Your task to perform on an android device: manage bookmarks in the chrome app Image 0: 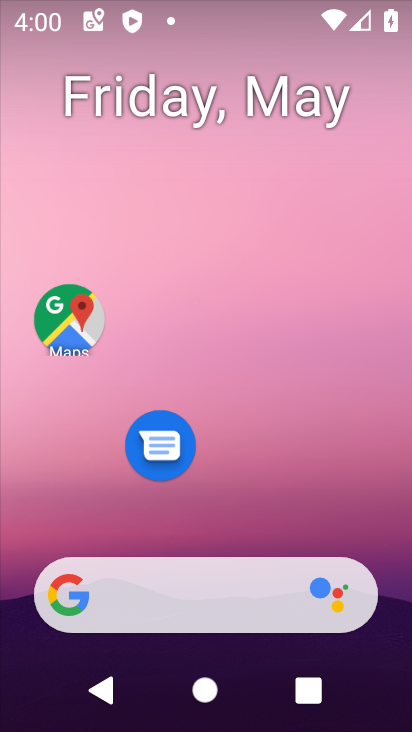
Step 0: drag from (252, 533) to (302, 104)
Your task to perform on an android device: manage bookmarks in the chrome app Image 1: 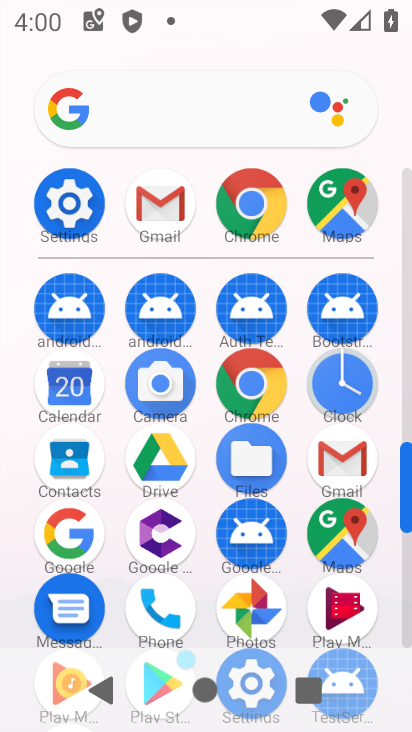
Step 1: click (256, 211)
Your task to perform on an android device: manage bookmarks in the chrome app Image 2: 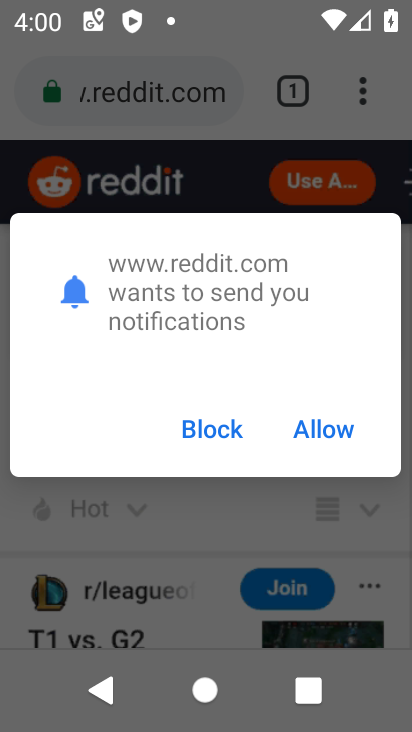
Step 2: click (364, 82)
Your task to perform on an android device: manage bookmarks in the chrome app Image 3: 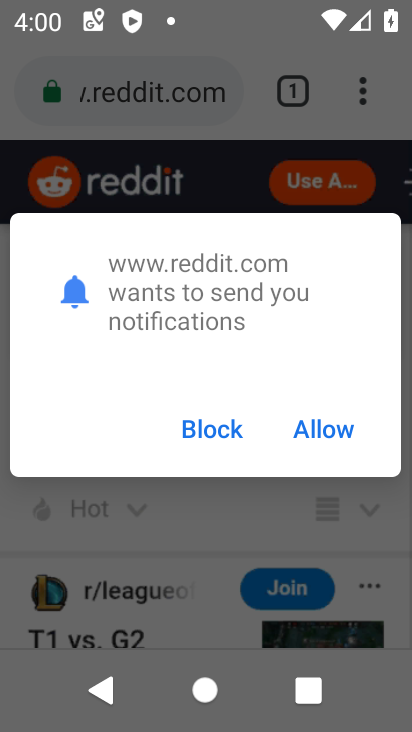
Step 3: click (201, 436)
Your task to perform on an android device: manage bookmarks in the chrome app Image 4: 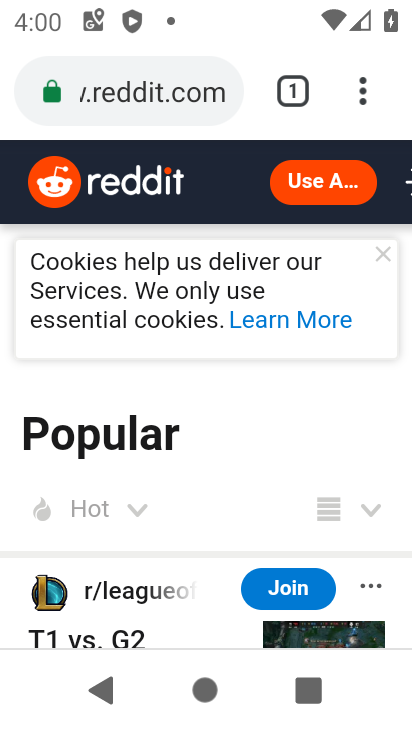
Step 4: click (370, 88)
Your task to perform on an android device: manage bookmarks in the chrome app Image 5: 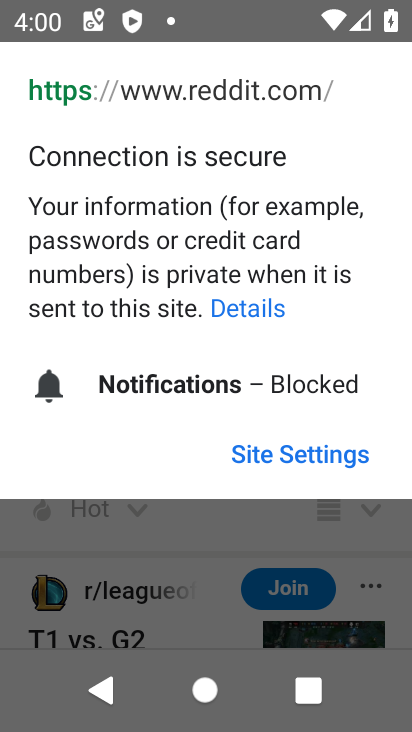
Step 5: click (226, 538)
Your task to perform on an android device: manage bookmarks in the chrome app Image 6: 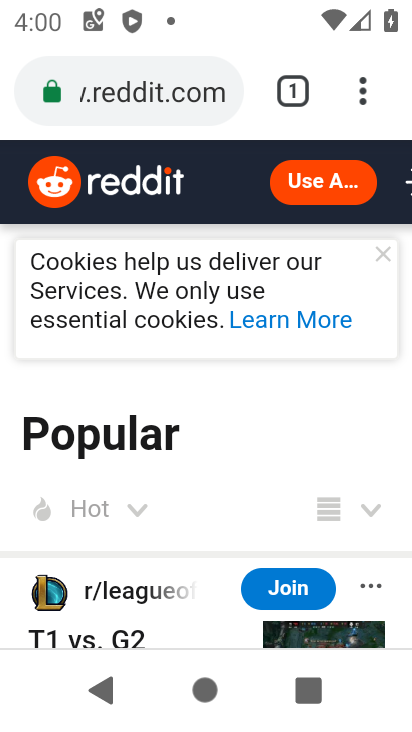
Step 6: click (368, 92)
Your task to perform on an android device: manage bookmarks in the chrome app Image 7: 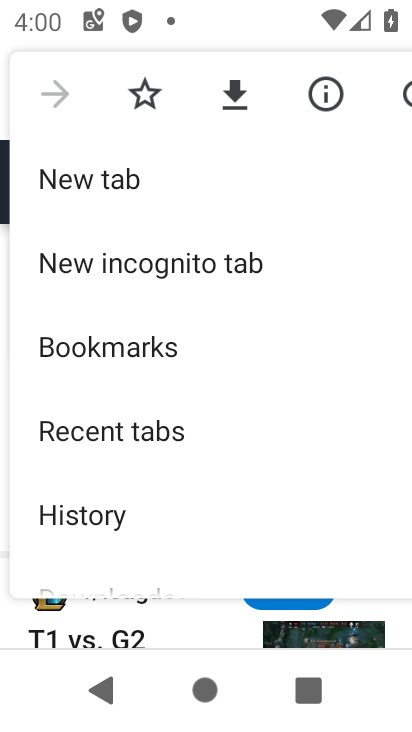
Step 7: drag from (157, 504) to (177, 138)
Your task to perform on an android device: manage bookmarks in the chrome app Image 8: 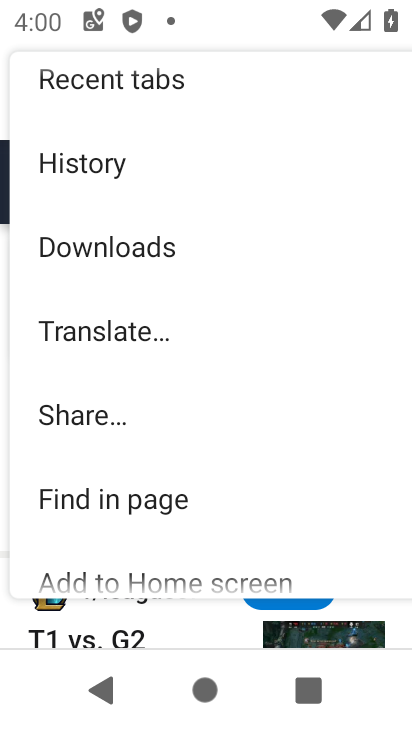
Step 8: drag from (158, 219) to (109, 517)
Your task to perform on an android device: manage bookmarks in the chrome app Image 9: 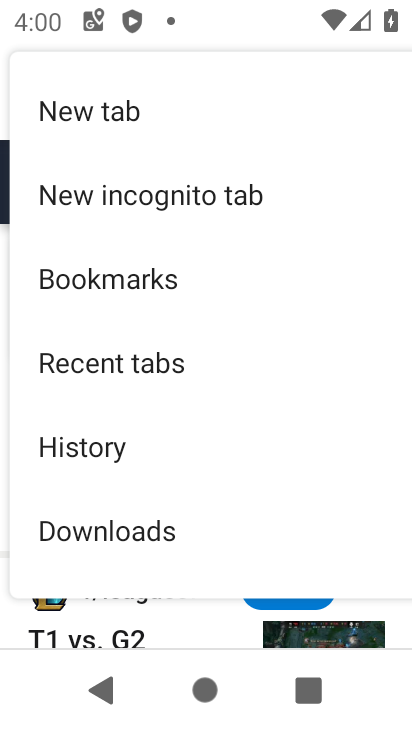
Step 9: click (113, 287)
Your task to perform on an android device: manage bookmarks in the chrome app Image 10: 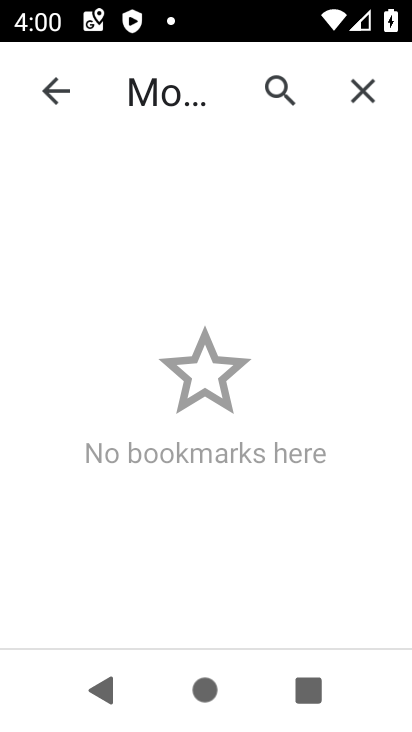
Step 10: task complete